Your task to perform on an android device: Open Youtube and go to "Your channel" Image 0: 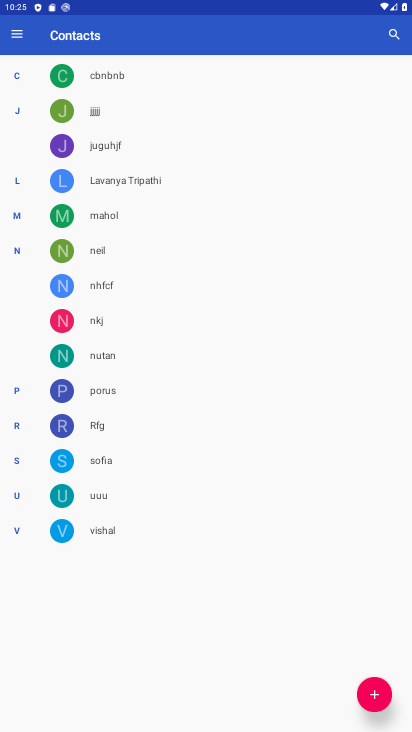
Step 0: press home button
Your task to perform on an android device: Open Youtube and go to "Your channel" Image 1: 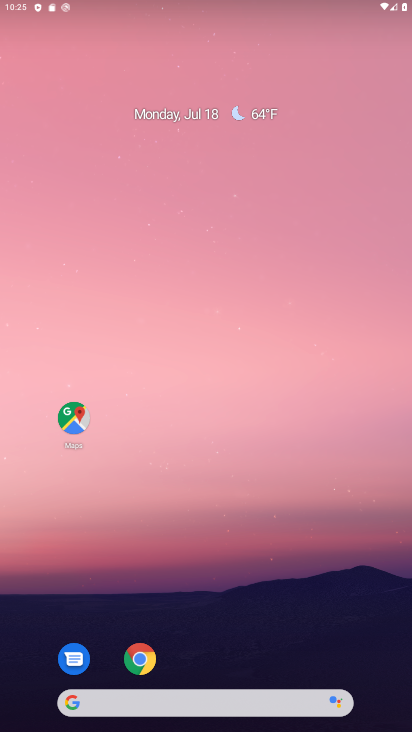
Step 1: drag from (260, 673) to (286, 114)
Your task to perform on an android device: Open Youtube and go to "Your channel" Image 2: 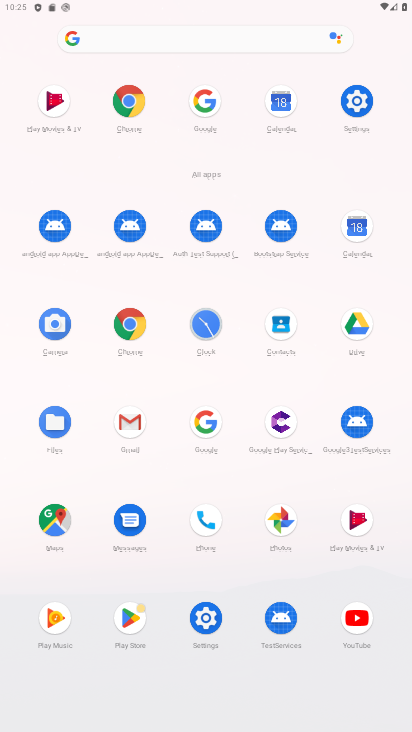
Step 2: click (358, 617)
Your task to perform on an android device: Open Youtube and go to "Your channel" Image 3: 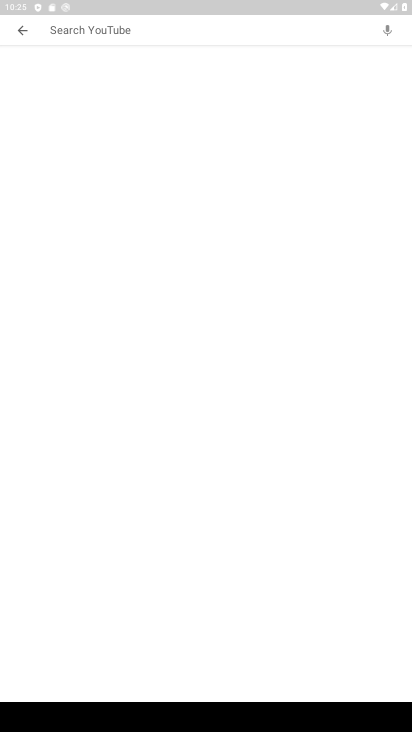
Step 3: task complete